Your task to perform on an android device: open chrome and create a bookmark for the current page Image 0: 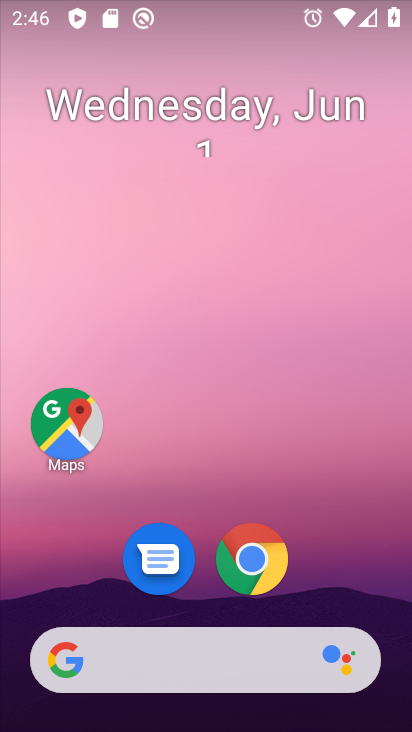
Step 0: click (240, 556)
Your task to perform on an android device: open chrome and create a bookmark for the current page Image 1: 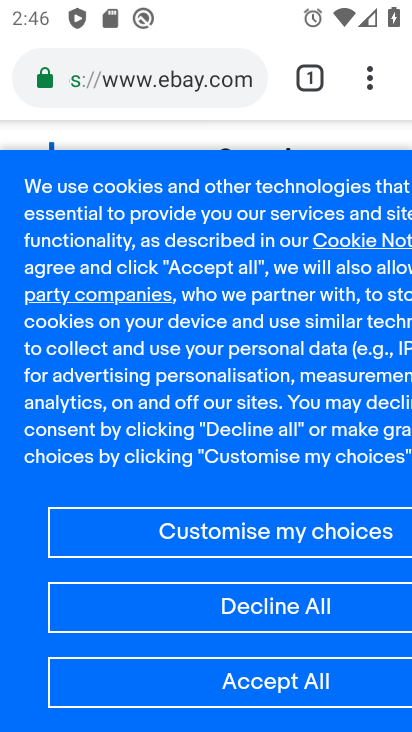
Step 1: click (362, 87)
Your task to perform on an android device: open chrome and create a bookmark for the current page Image 2: 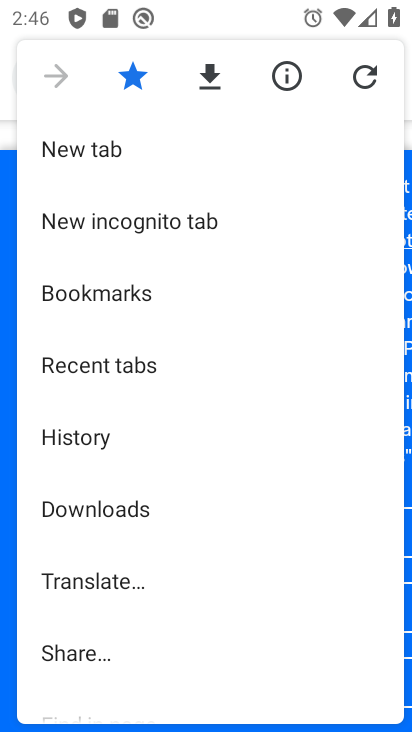
Step 2: task complete